Your task to perform on an android device: turn off javascript in the chrome app Image 0: 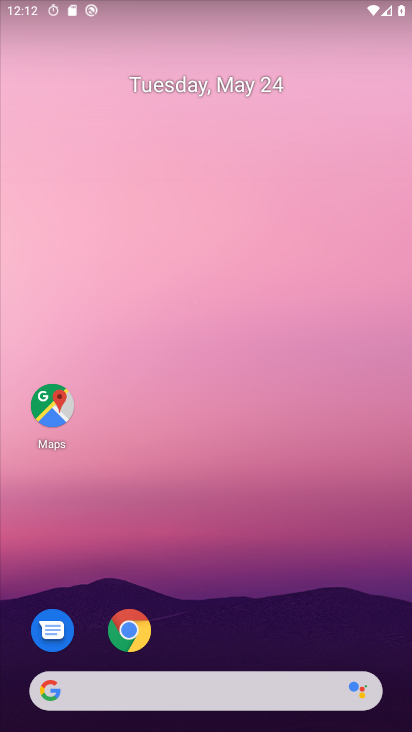
Step 0: click (137, 623)
Your task to perform on an android device: turn off javascript in the chrome app Image 1: 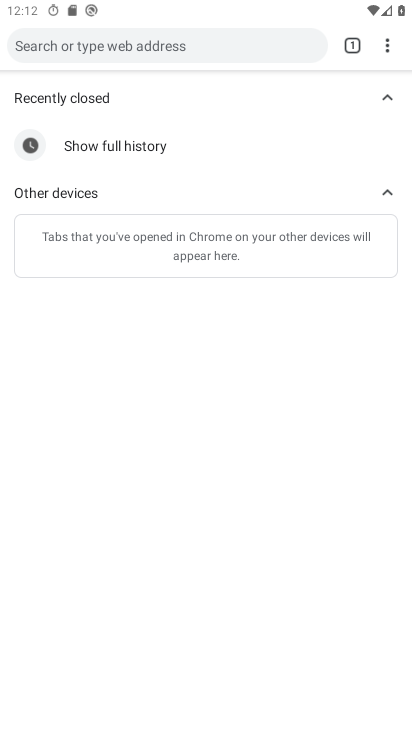
Step 1: click (385, 40)
Your task to perform on an android device: turn off javascript in the chrome app Image 2: 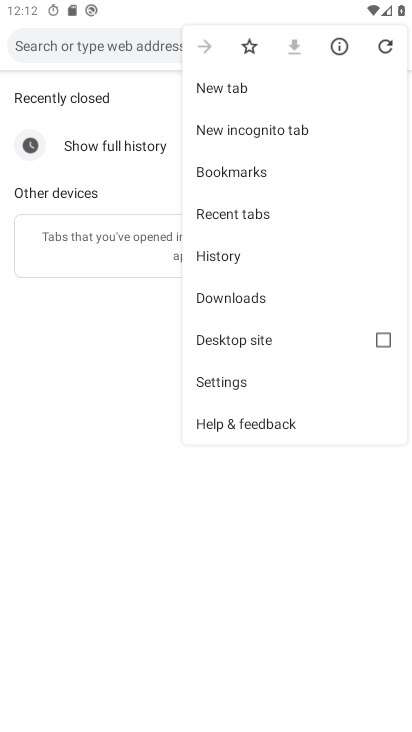
Step 2: click (216, 387)
Your task to perform on an android device: turn off javascript in the chrome app Image 3: 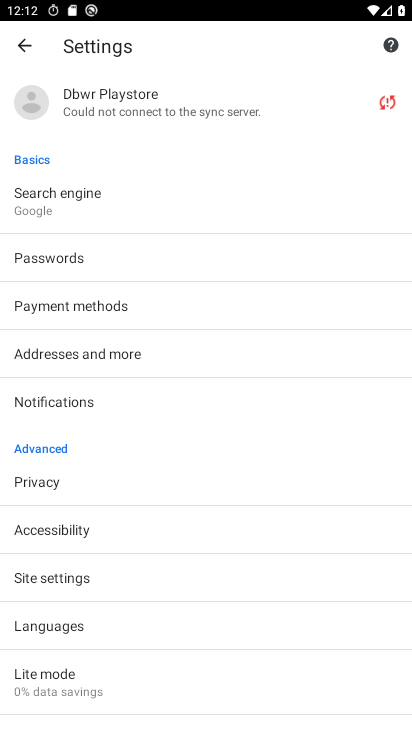
Step 3: click (79, 575)
Your task to perform on an android device: turn off javascript in the chrome app Image 4: 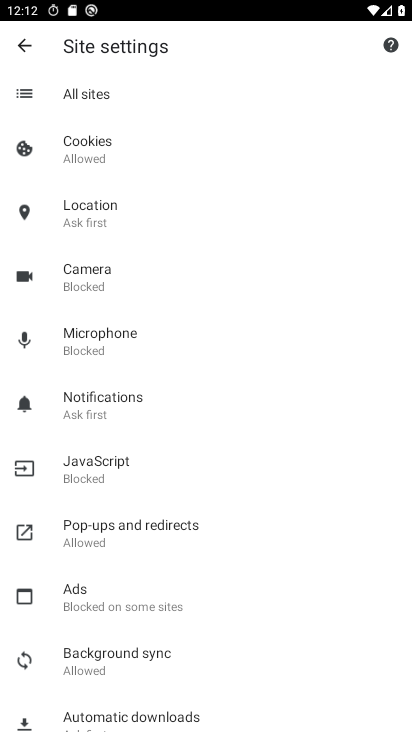
Step 4: click (100, 474)
Your task to perform on an android device: turn off javascript in the chrome app Image 5: 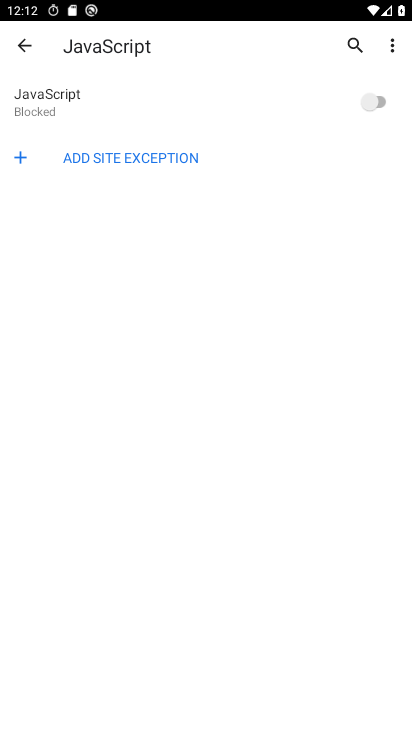
Step 5: task complete